Your task to perform on an android device: Open the Play Movies app and select the watchlist tab. Image 0: 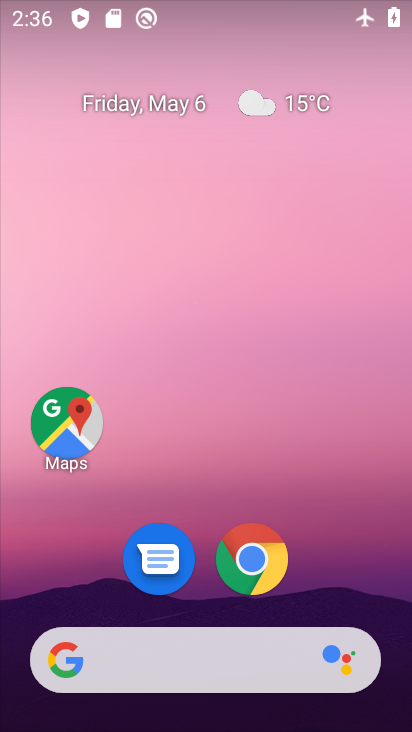
Step 0: drag from (380, 582) to (391, 7)
Your task to perform on an android device: Open the Play Movies app and select the watchlist tab. Image 1: 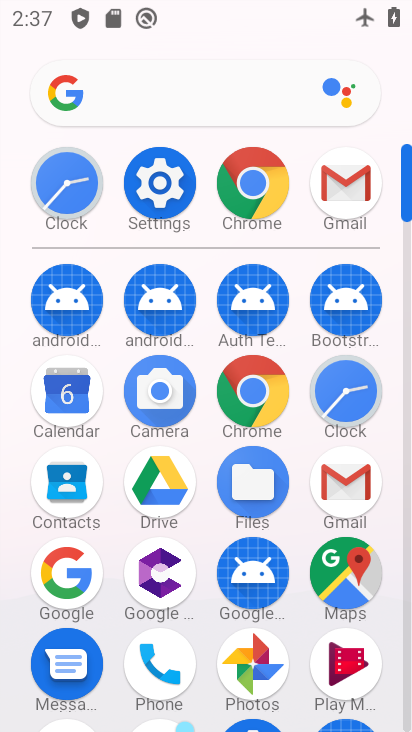
Step 1: click (408, 720)
Your task to perform on an android device: Open the Play Movies app and select the watchlist tab. Image 2: 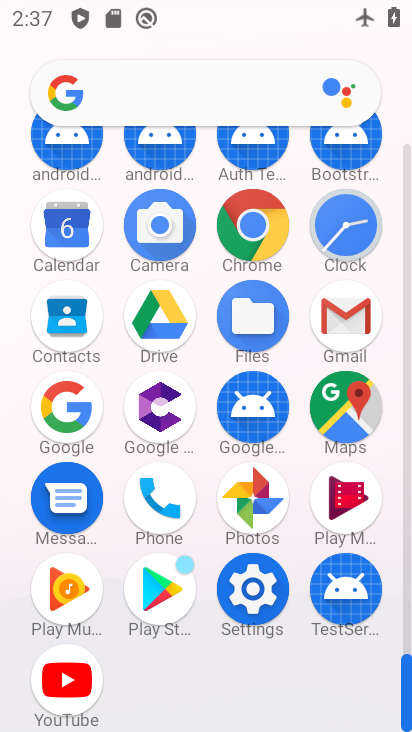
Step 2: click (361, 516)
Your task to perform on an android device: Open the Play Movies app and select the watchlist tab. Image 3: 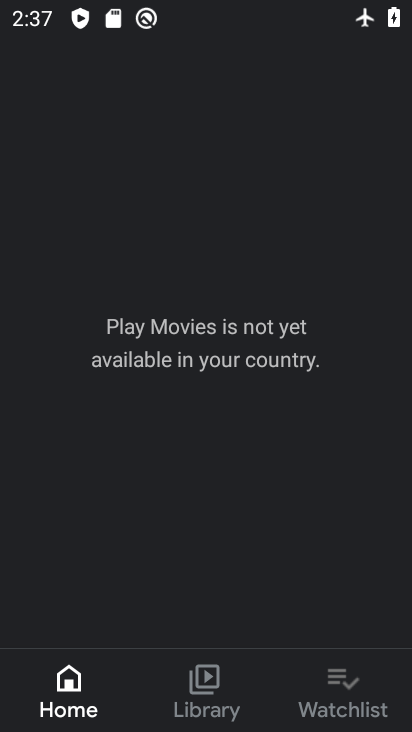
Step 3: click (328, 677)
Your task to perform on an android device: Open the Play Movies app and select the watchlist tab. Image 4: 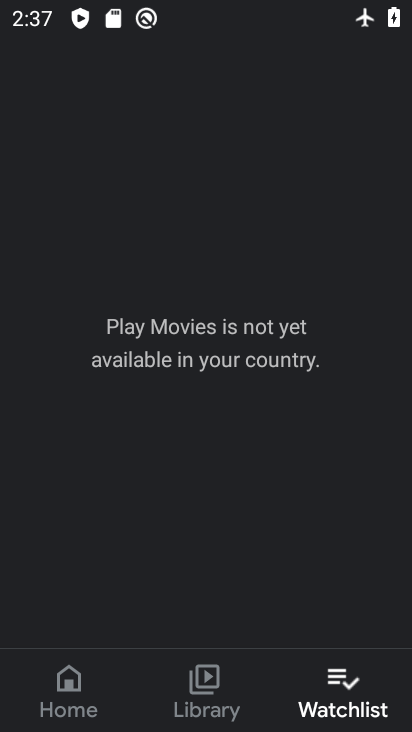
Step 4: task complete